Your task to perform on an android device: toggle improve location accuracy Image 0: 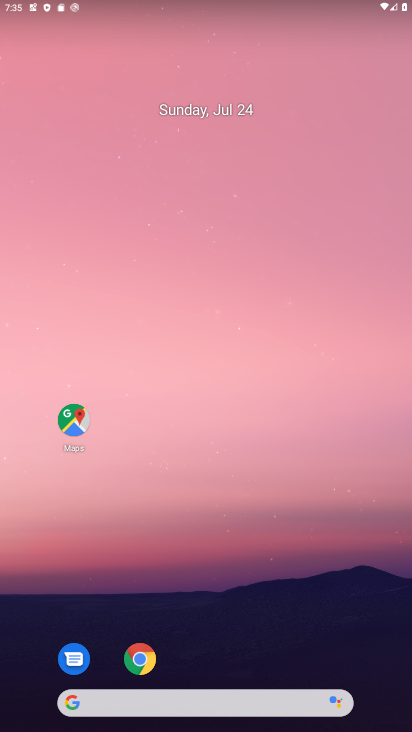
Step 0: drag from (276, 598) to (207, 58)
Your task to perform on an android device: toggle improve location accuracy Image 1: 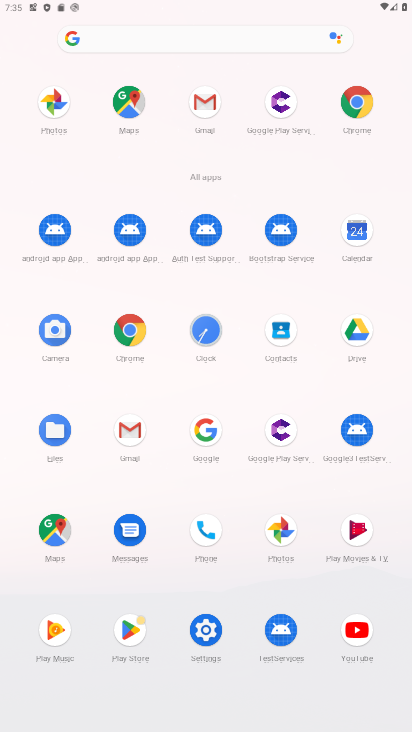
Step 1: click (201, 630)
Your task to perform on an android device: toggle improve location accuracy Image 2: 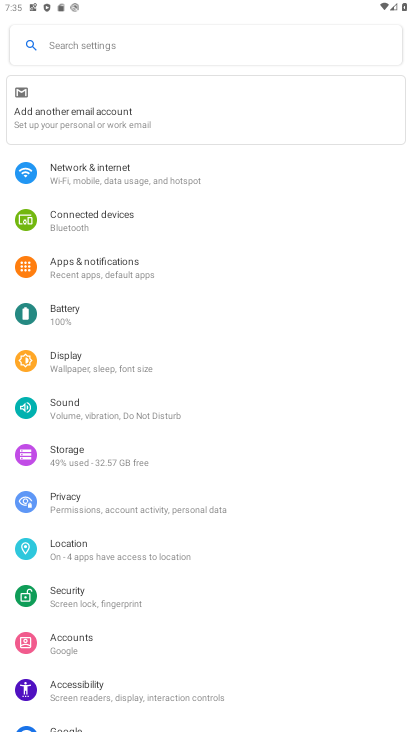
Step 2: click (92, 546)
Your task to perform on an android device: toggle improve location accuracy Image 3: 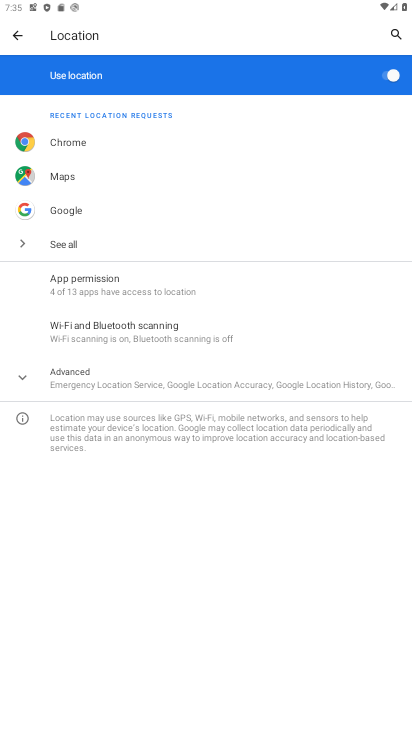
Step 3: click (82, 376)
Your task to perform on an android device: toggle improve location accuracy Image 4: 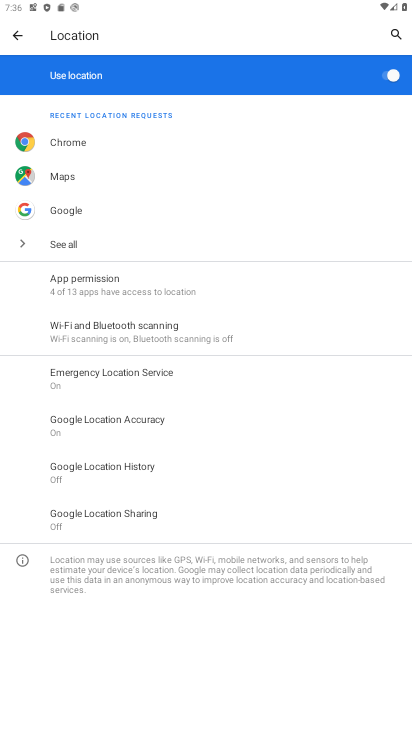
Step 4: click (130, 429)
Your task to perform on an android device: toggle improve location accuracy Image 5: 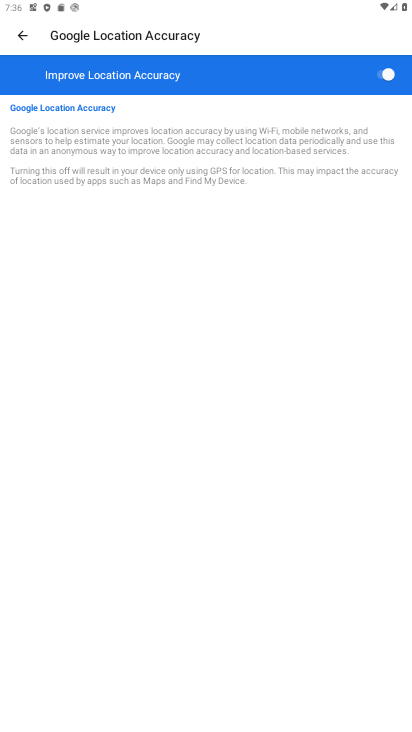
Step 5: click (364, 70)
Your task to perform on an android device: toggle improve location accuracy Image 6: 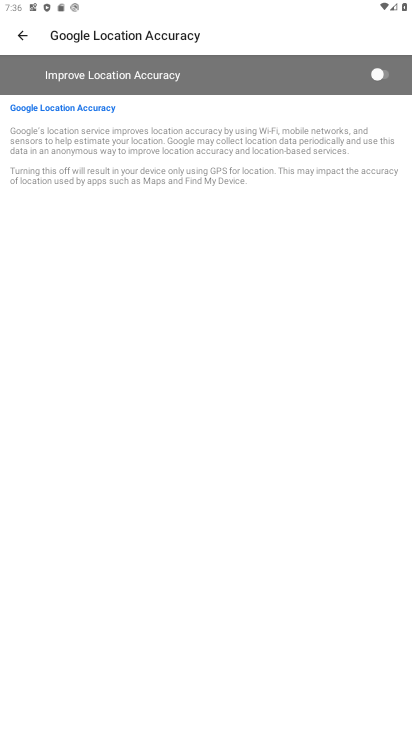
Step 6: task complete